Your task to perform on an android device: clear history in the chrome app Image 0: 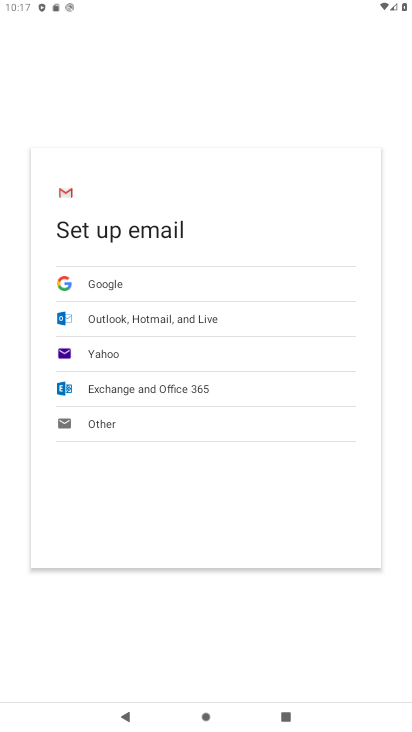
Step 0: press home button
Your task to perform on an android device: clear history in the chrome app Image 1: 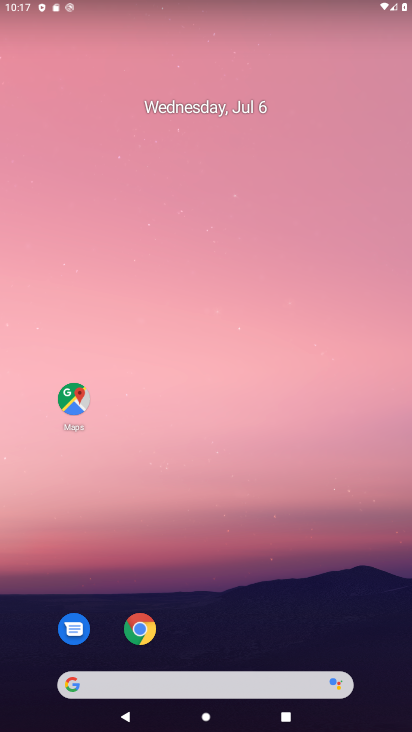
Step 1: click (137, 626)
Your task to perform on an android device: clear history in the chrome app Image 2: 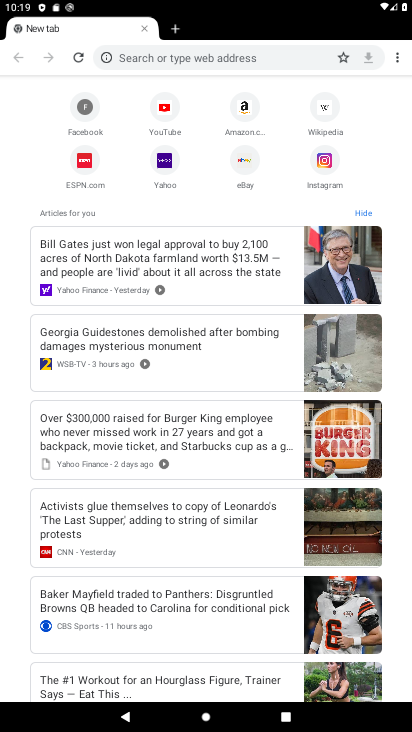
Step 2: click (403, 63)
Your task to perform on an android device: clear history in the chrome app Image 3: 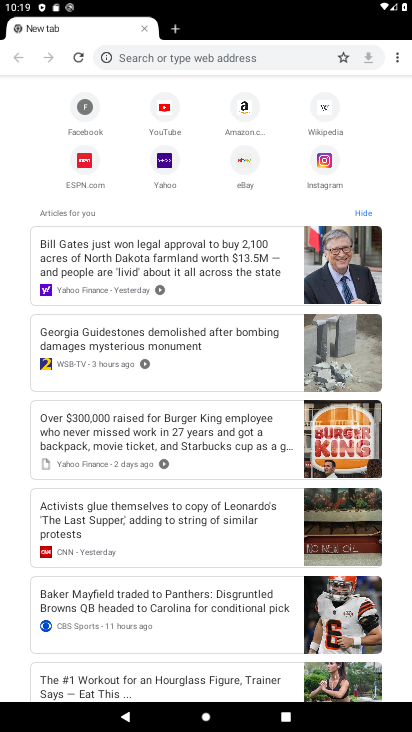
Step 3: press home button
Your task to perform on an android device: clear history in the chrome app Image 4: 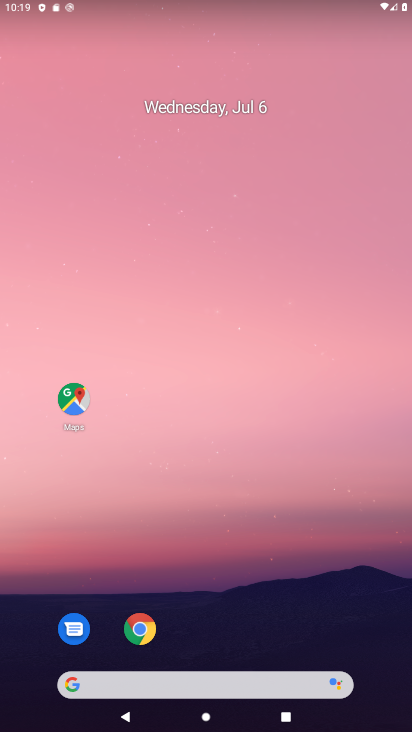
Step 4: click (147, 629)
Your task to perform on an android device: clear history in the chrome app Image 5: 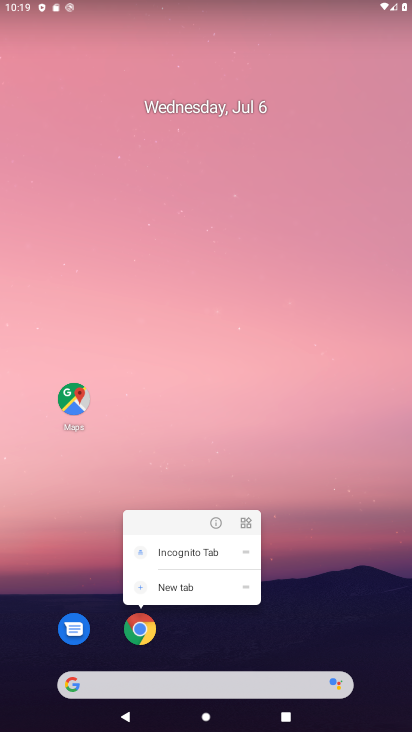
Step 5: click (131, 625)
Your task to perform on an android device: clear history in the chrome app Image 6: 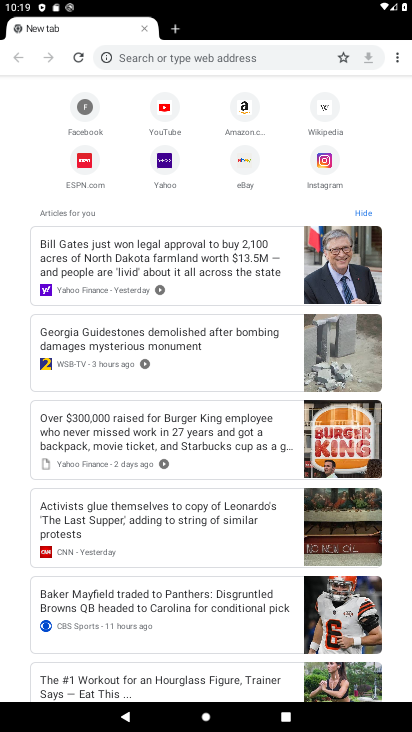
Step 6: click (406, 49)
Your task to perform on an android device: clear history in the chrome app Image 7: 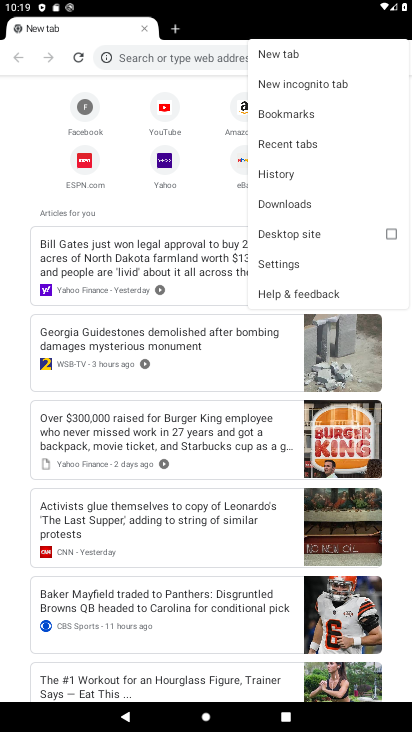
Step 7: click (295, 171)
Your task to perform on an android device: clear history in the chrome app Image 8: 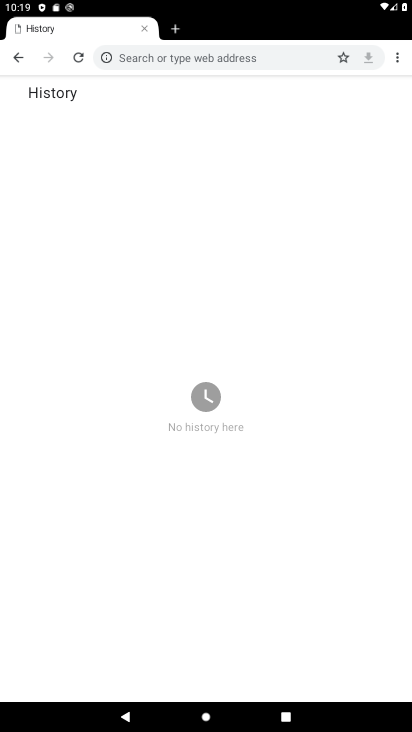
Step 8: task complete